Your task to perform on an android device: create a new album in the google photos Image 0: 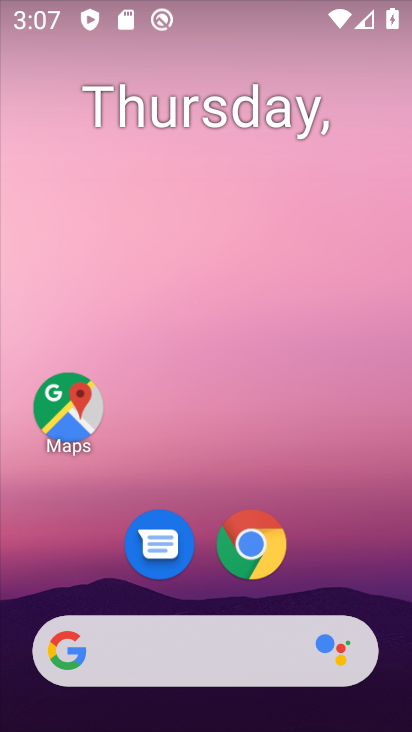
Step 0: drag from (361, 601) to (213, 54)
Your task to perform on an android device: create a new album in the google photos Image 1: 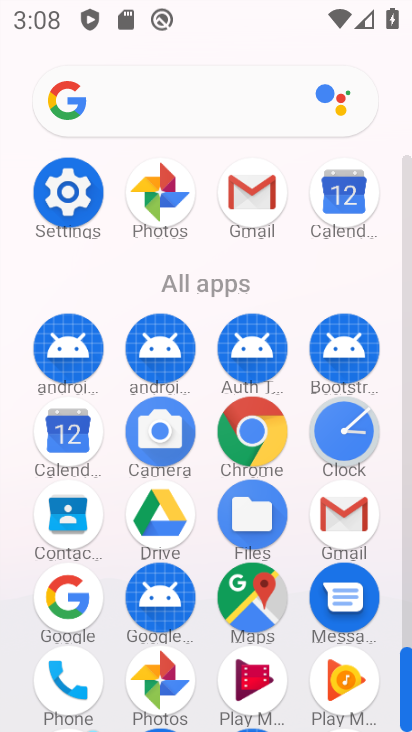
Step 1: drag from (208, 538) to (215, 76)
Your task to perform on an android device: create a new album in the google photos Image 2: 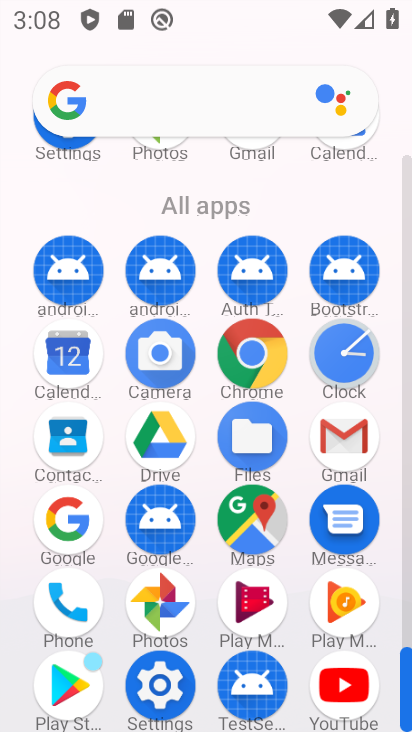
Step 2: click (153, 590)
Your task to perform on an android device: create a new album in the google photos Image 3: 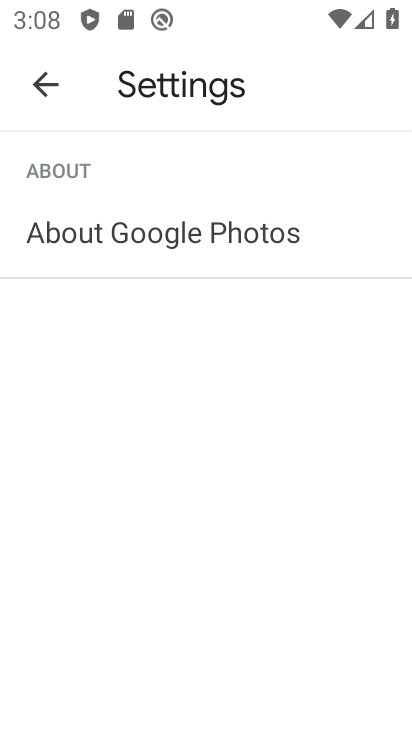
Step 3: click (37, 82)
Your task to perform on an android device: create a new album in the google photos Image 4: 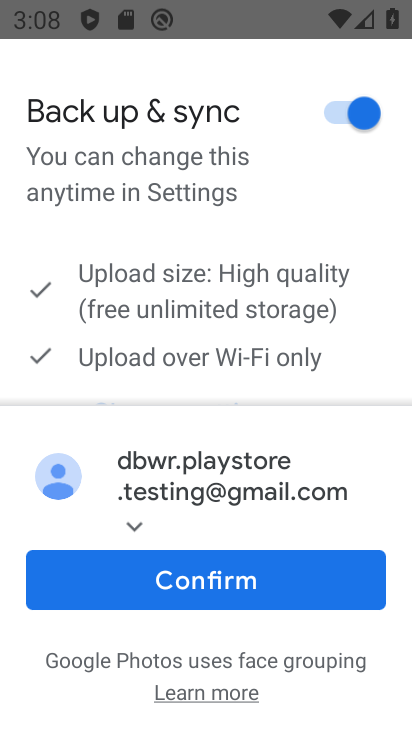
Step 4: click (296, 568)
Your task to perform on an android device: create a new album in the google photos Image 5: 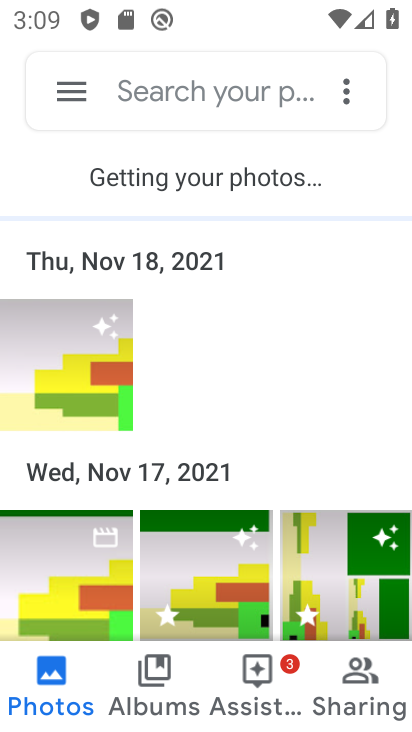
Step 5: click (351, 96)
Your task to perform on an android device: create a new album in the google photos Image 6: 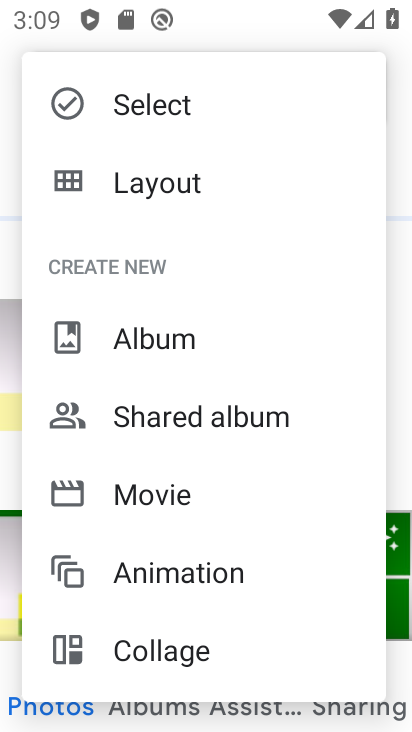
Step 6: click (161, 333)
Your task to perform on an android device: create a new album in the google photos Image 7: 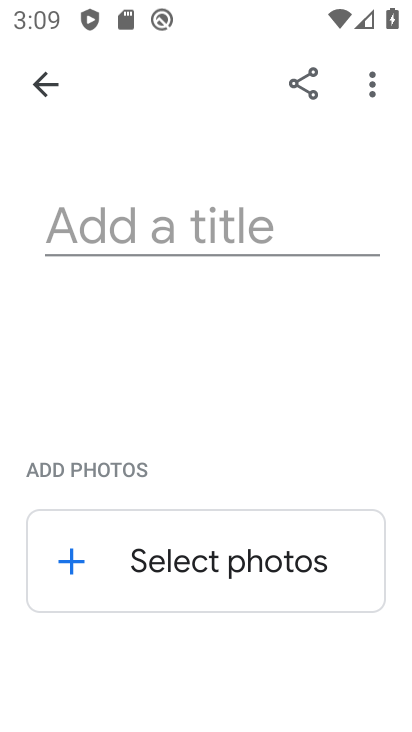
Step 7: click (123, 230)
Your task to perform on an android device: create a new album in the google photos Image 8: 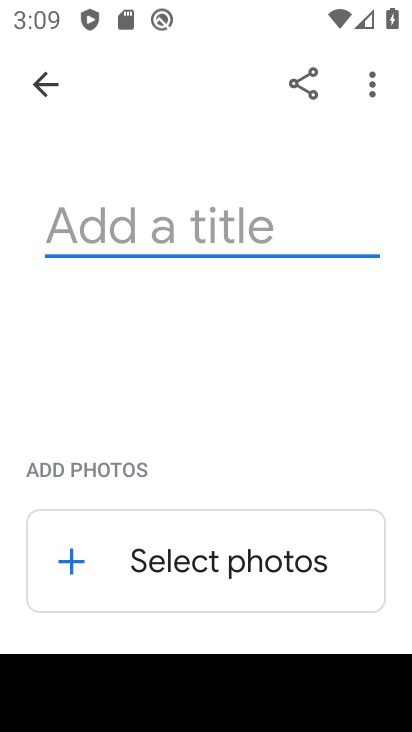
Step 8: type "sagashdhswkj"
Your task to perform on an android device: create a new album in the google photos Image 9: 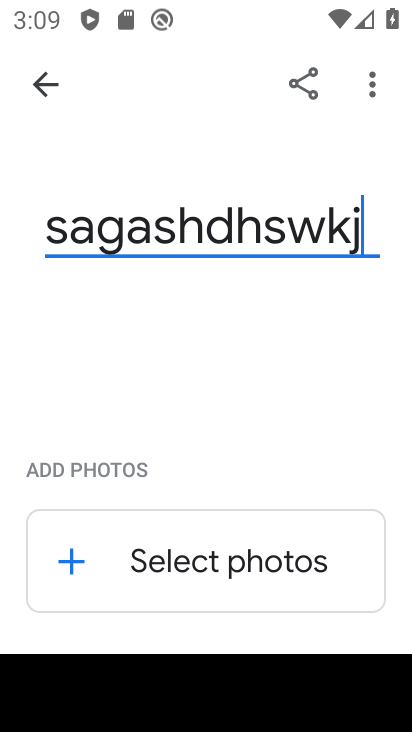
Step 9: type ""
Your task to perform on an android device: create a new album in the google photos Image 10: 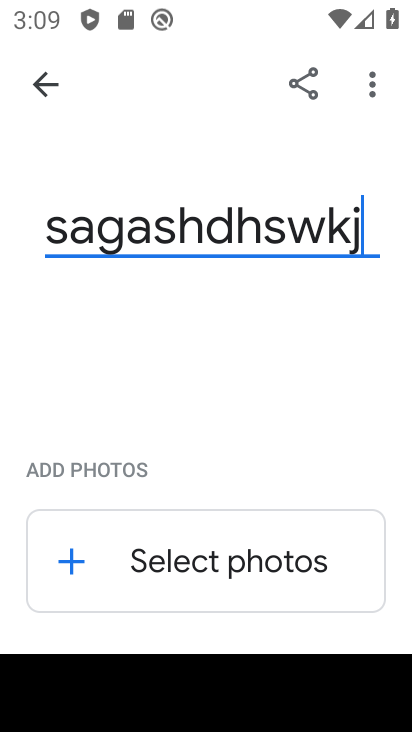
Step 10: click (162, 557)
Your task to perform on an android device: create a new album in the google photos Image 11: 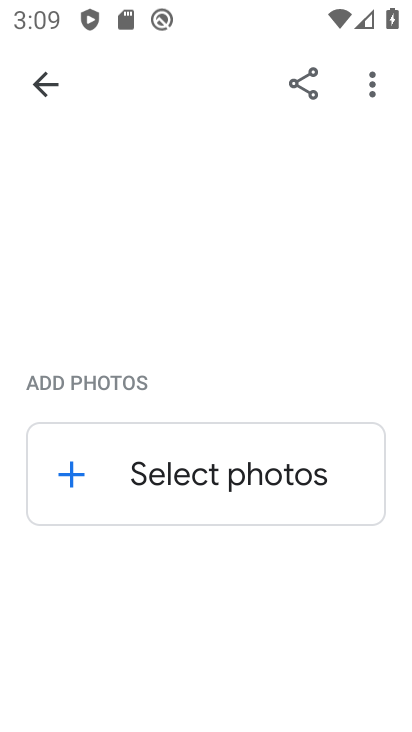
Step 11: click (161, 460)
Your task to perform on an android device: create a new album in the google photos Image 12: 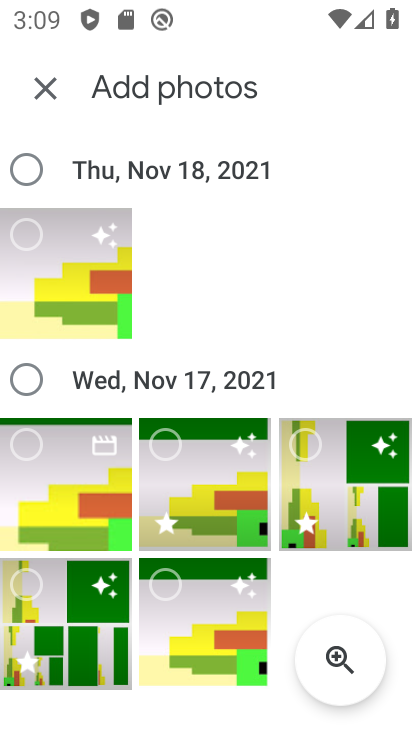
Step 12: click (161, 460)
Your task to perform on an android device: create a new album in the google photos Image 13: 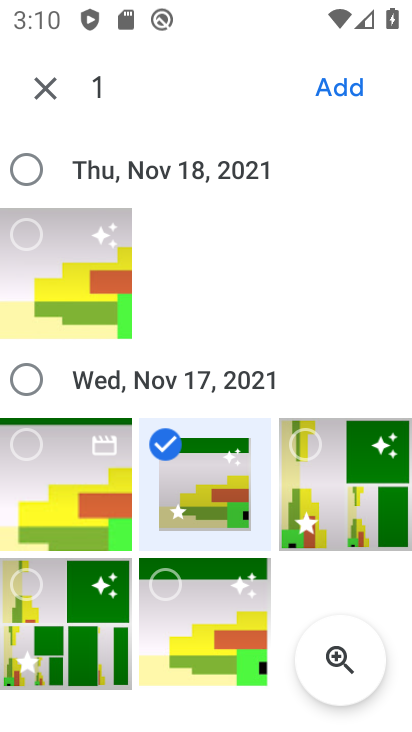
Step 13: click (56, 244)
Your task to perform on an android device: create a new album in the google photos Image 14: 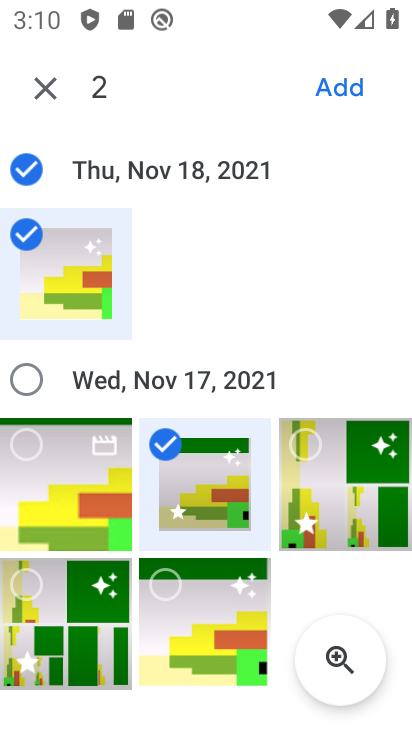
Step 14: click (335, 83)
Your task to perform on an android device: create a new album in the google photos Image 15: 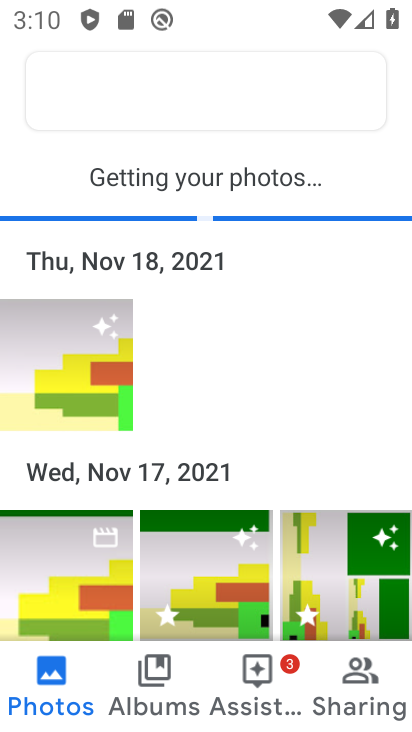
Step 15: task complete